Your task to perform on an android device: Install the Yelp app Image 0: 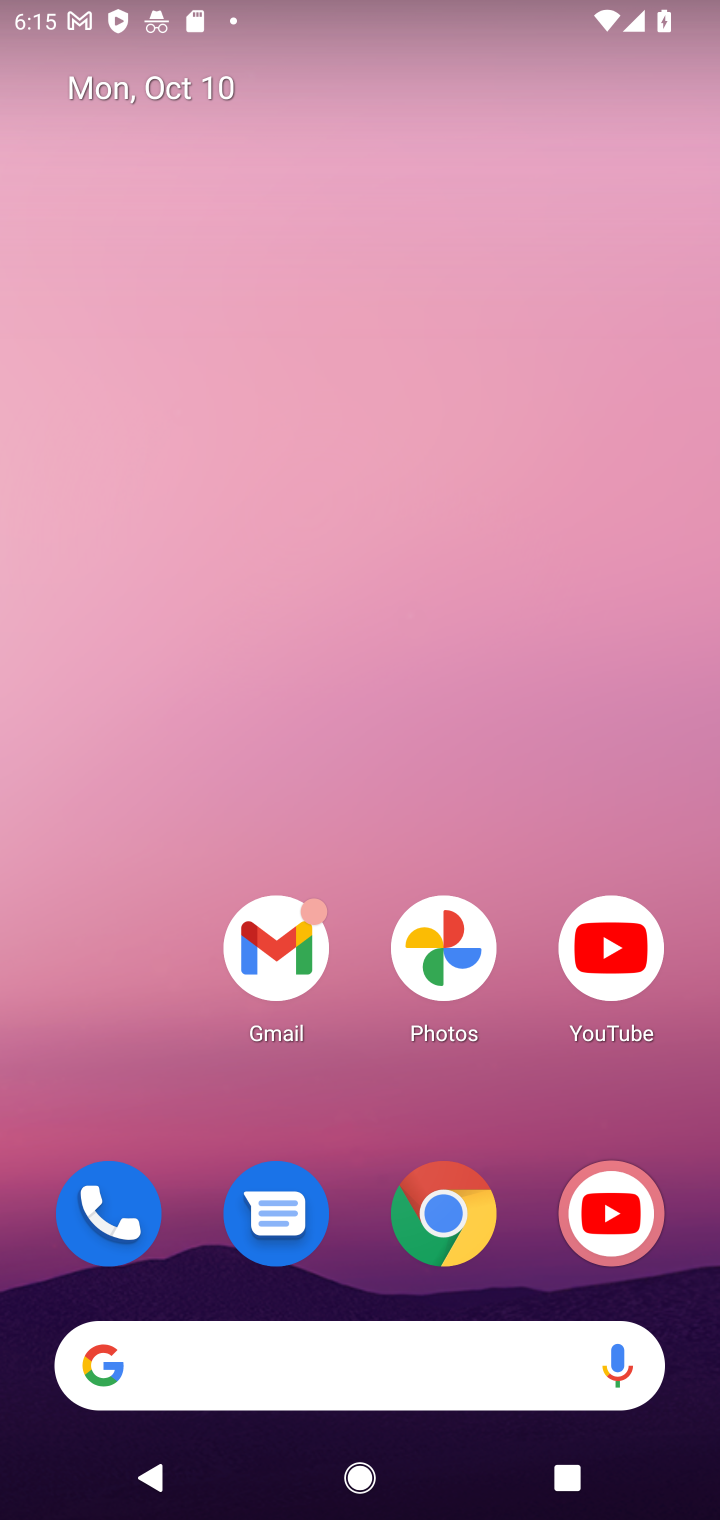
Step 0: drag from (218, 1096) to (288, 311)
Your task to perform on an android device: Install the Yelp app Image 1: 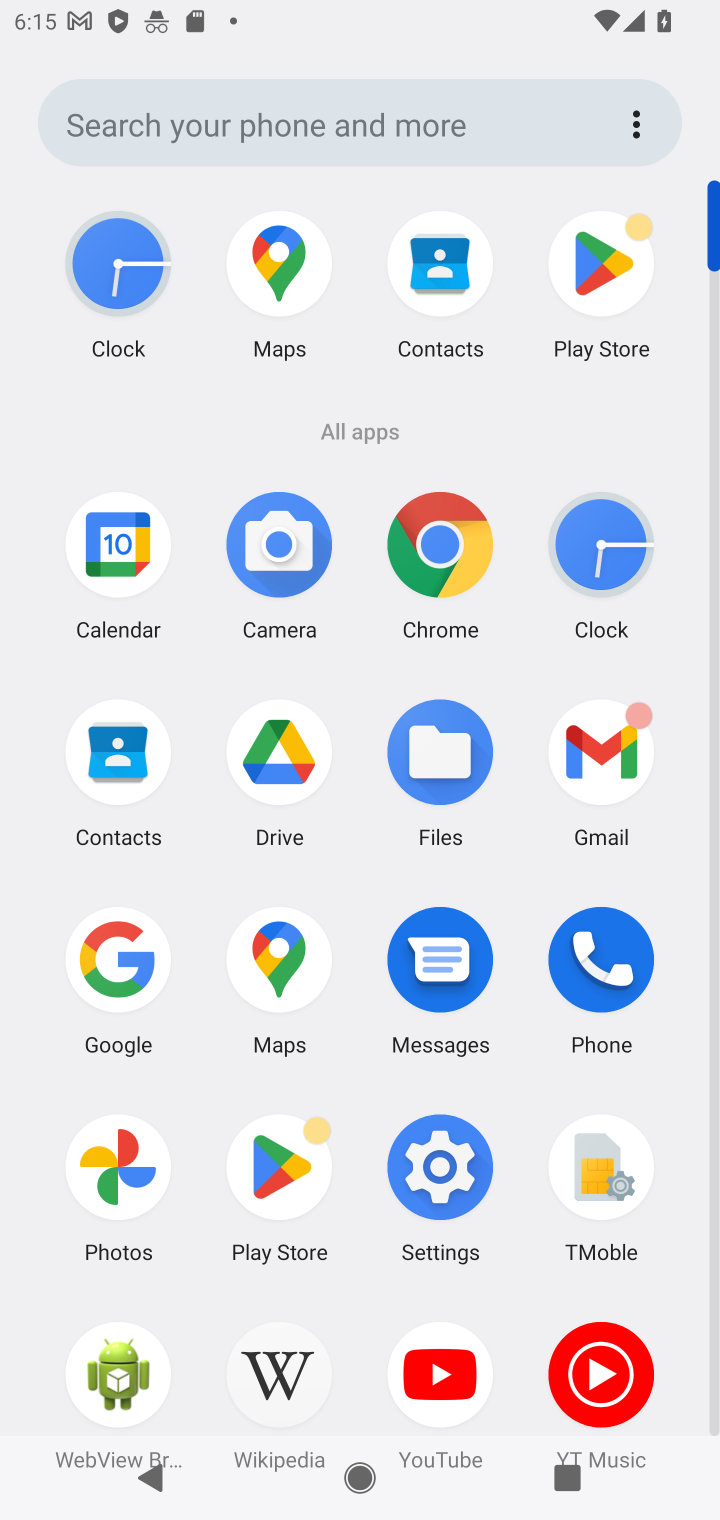
Step 1: click (606, 264)
Your task to perform on an android device: Install the Yelp app Image 2: 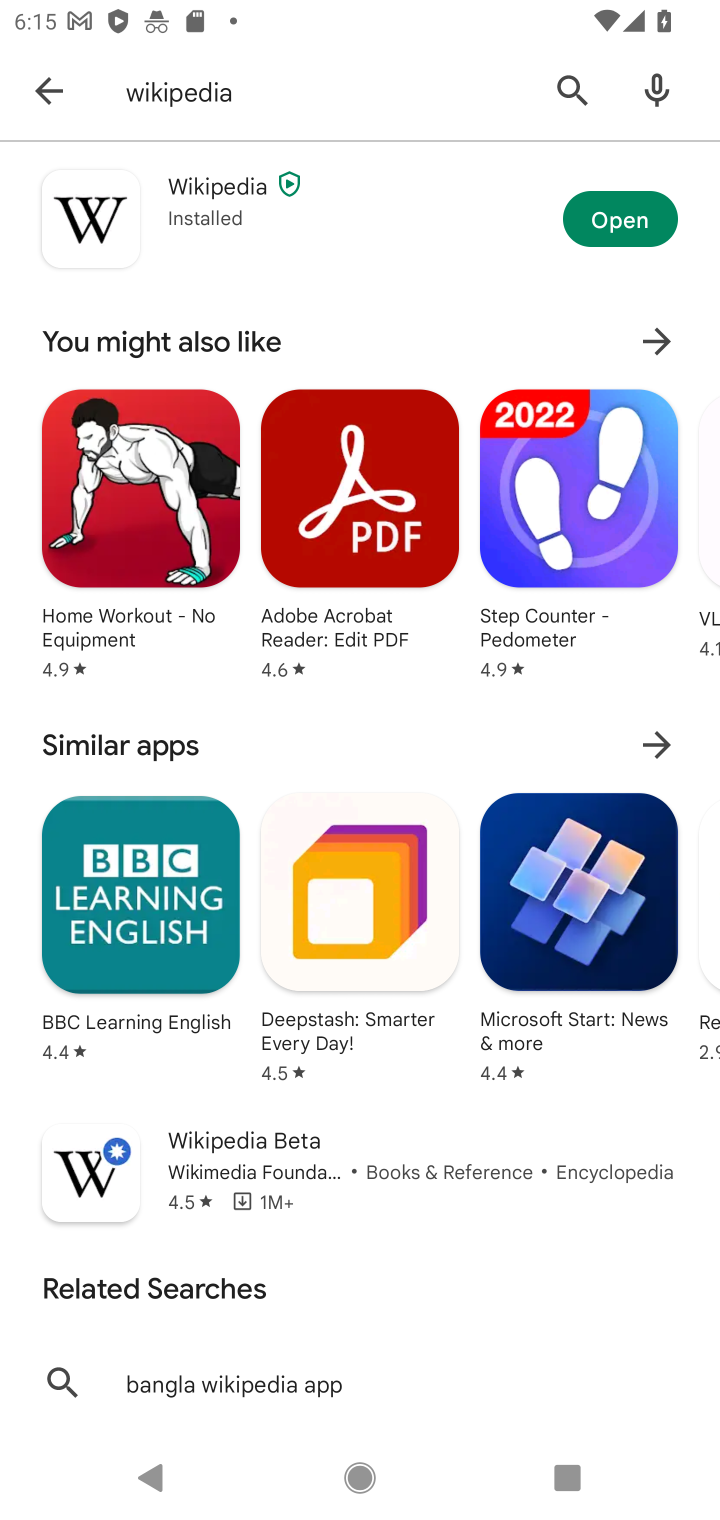
Step 2: click (561, 84)
Your task to perform on an android device: Install the Yelp app Image 3: 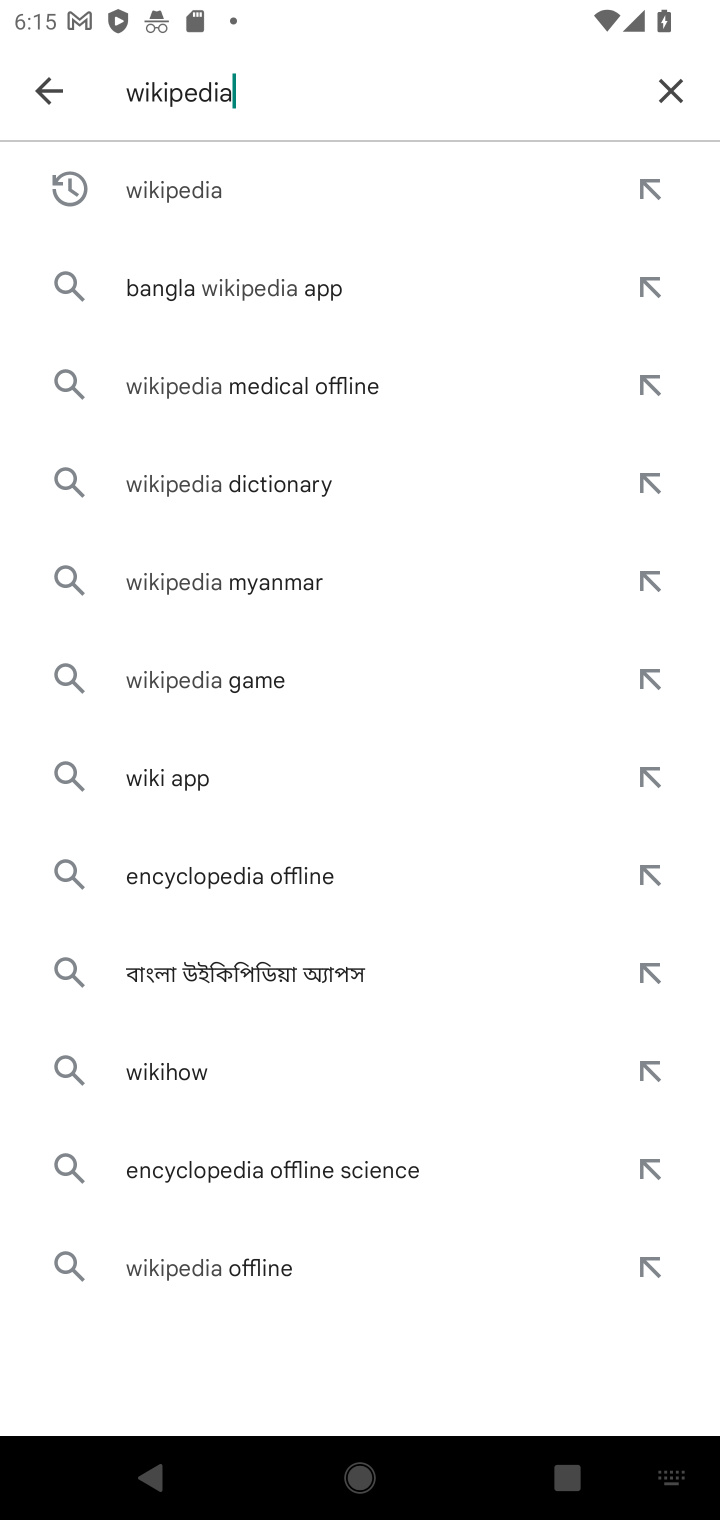
Step 3: click (664, 81)
Your task to perform on an android device: Install the Yelp app Image 4: 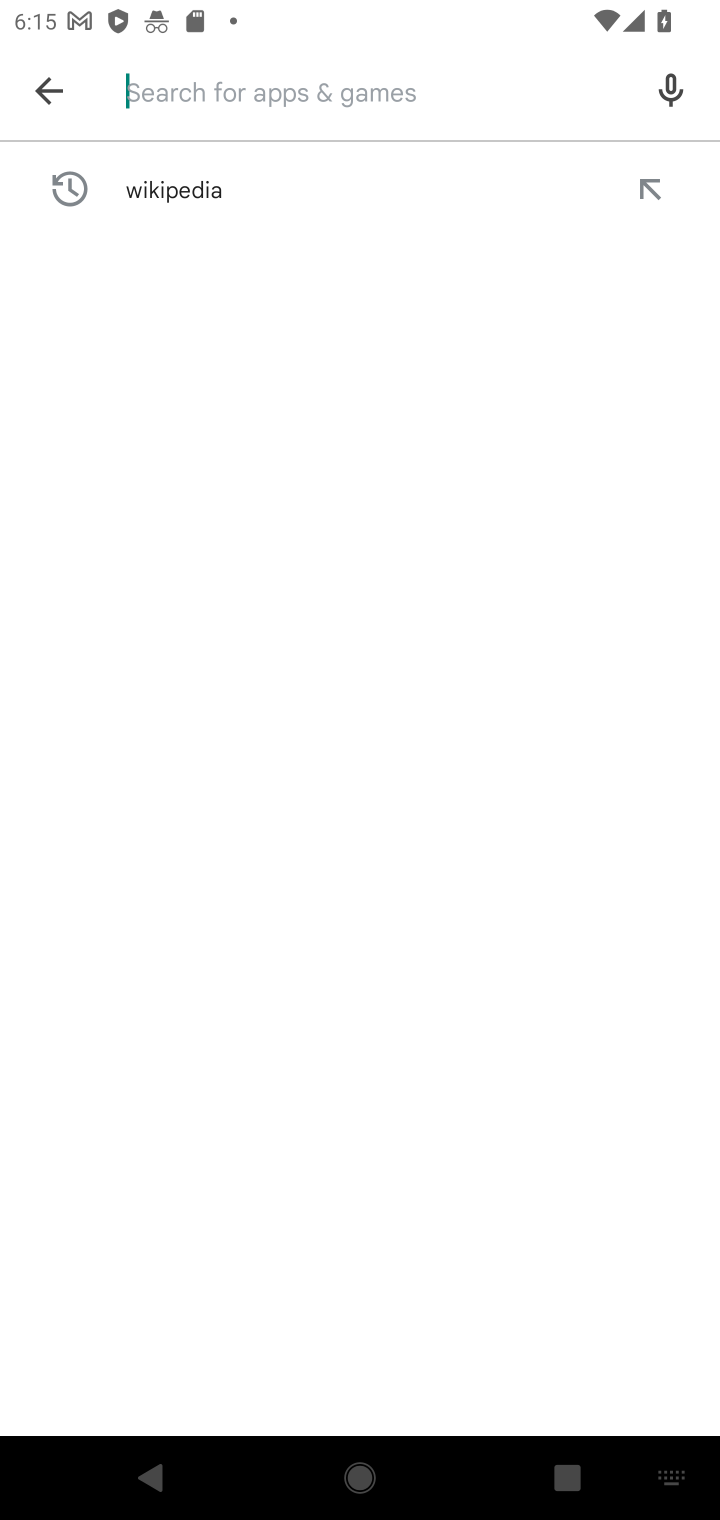
Step 4: click (223, 77)
Your task to perform on an android device: Install the Yelp app Image 5: 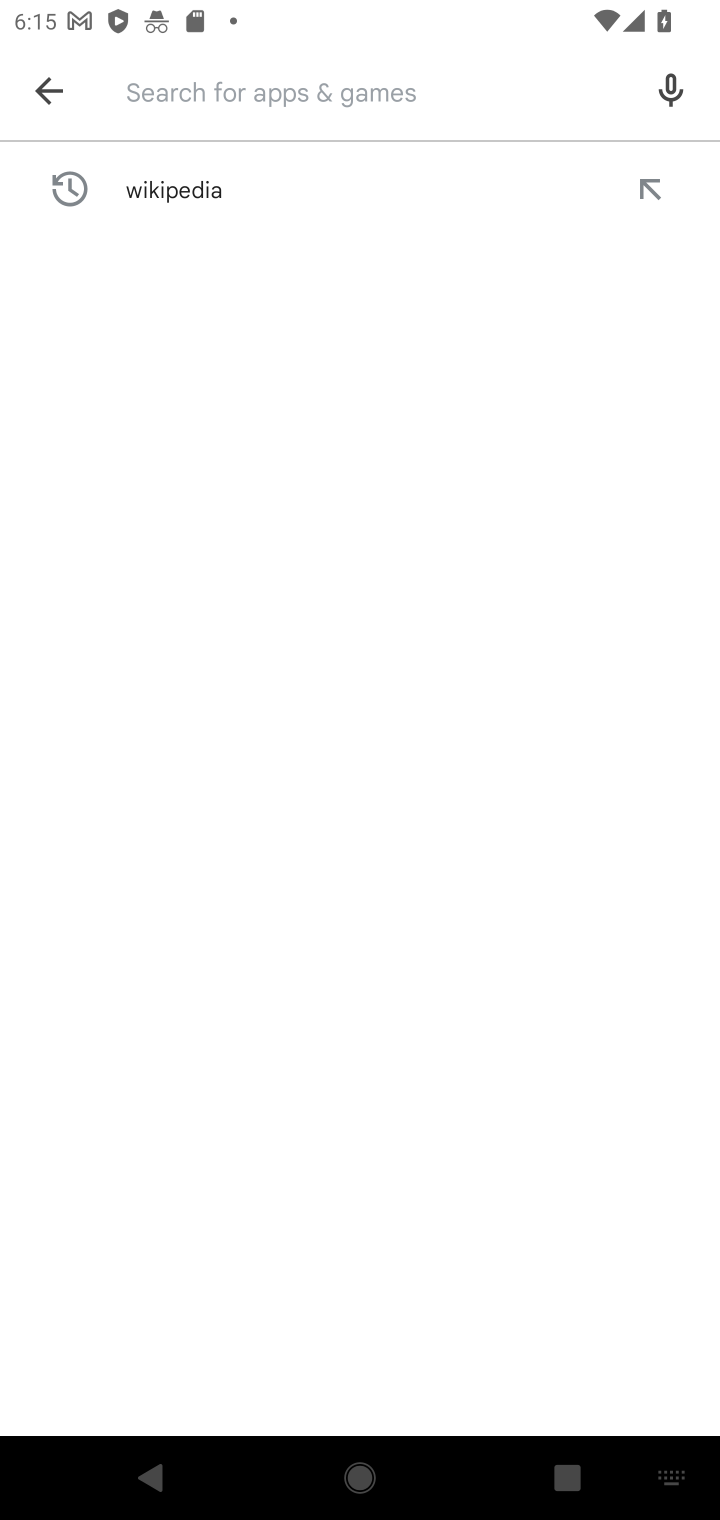
Step 5: type "yelp"
Your task to perform on an android device: Install the Yelp app Image 6: 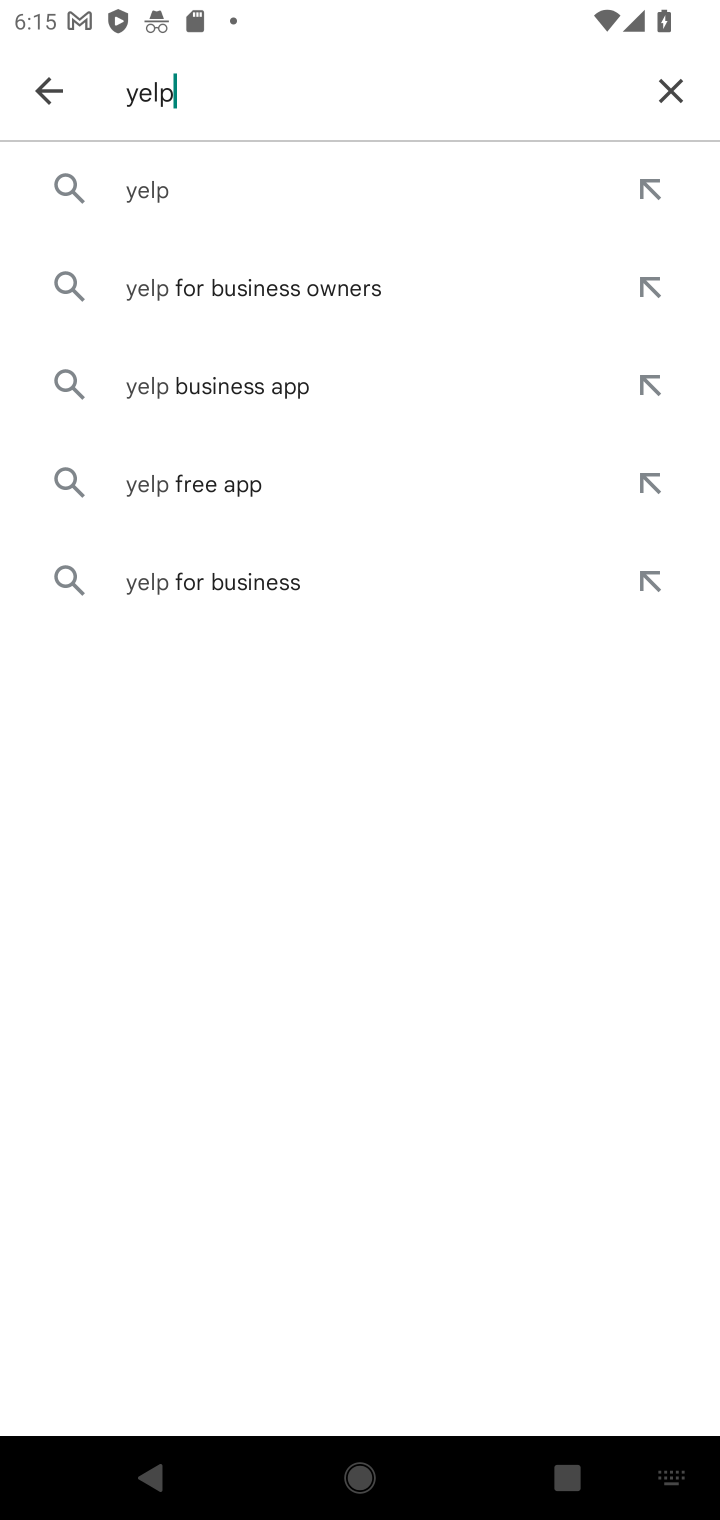
Step 6: click (229, 177)
Your task to perform on an android device: Install the Yelp app Image 7: 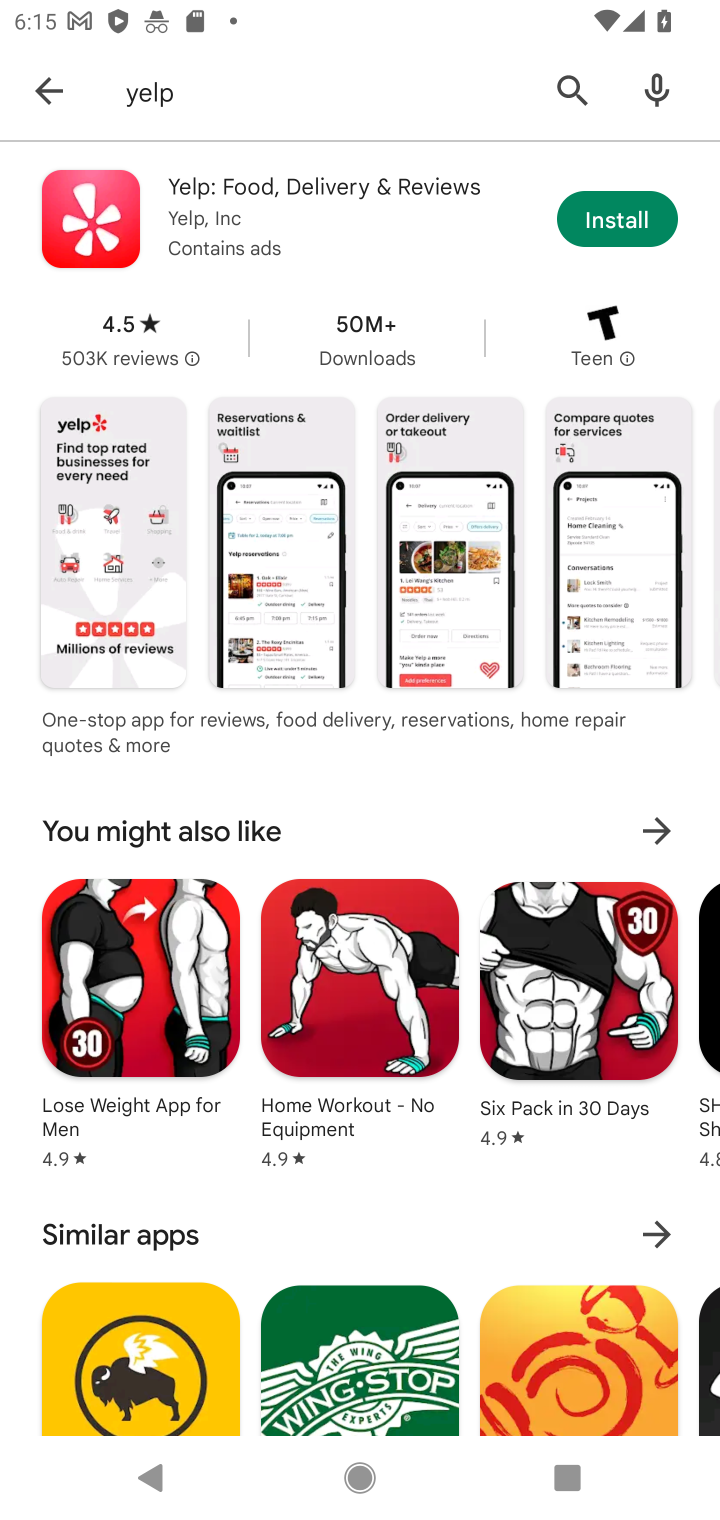
Step 7: click (629, 221)
Your task to perform on an android device: Install the Yelp app Image 8: 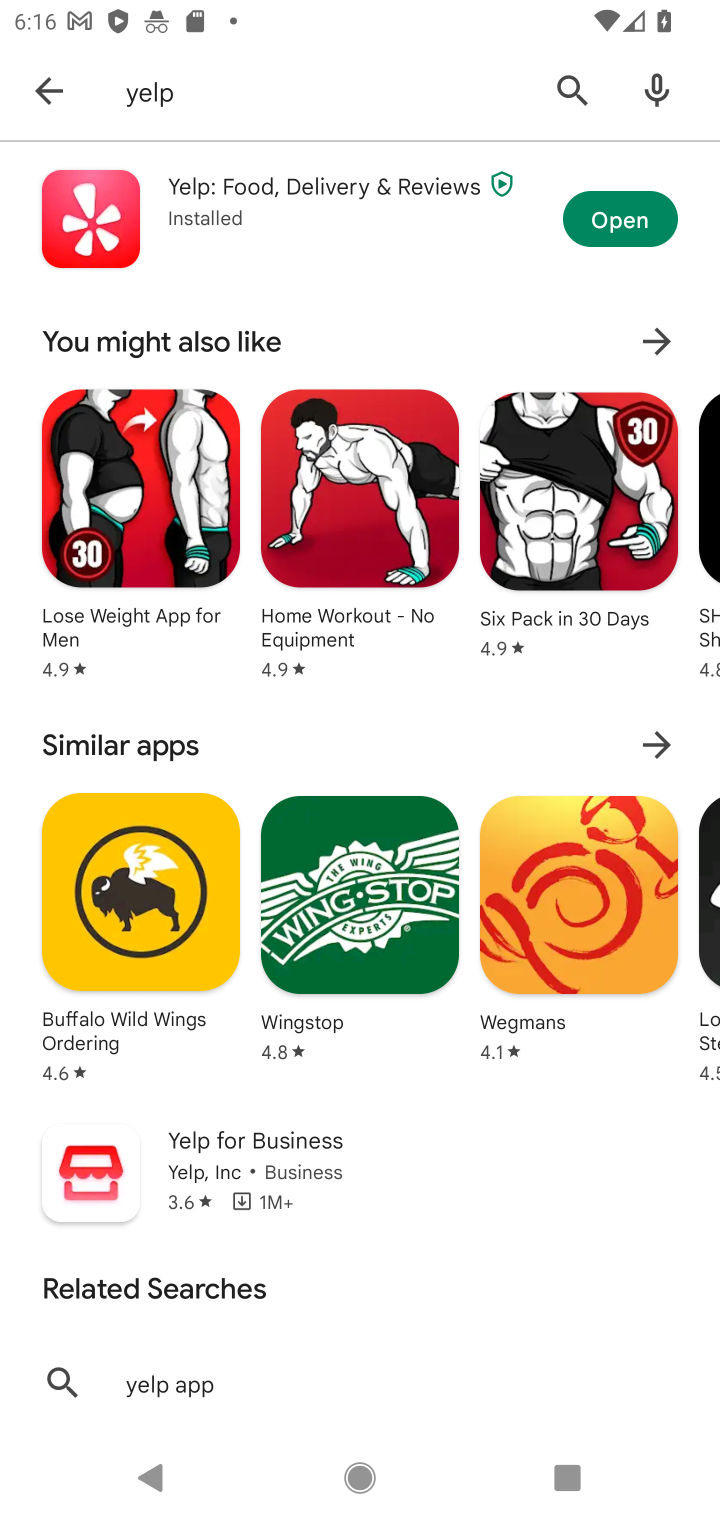
Step 8: task complete